Your task to perform on an android device: Go to Google Image 0: 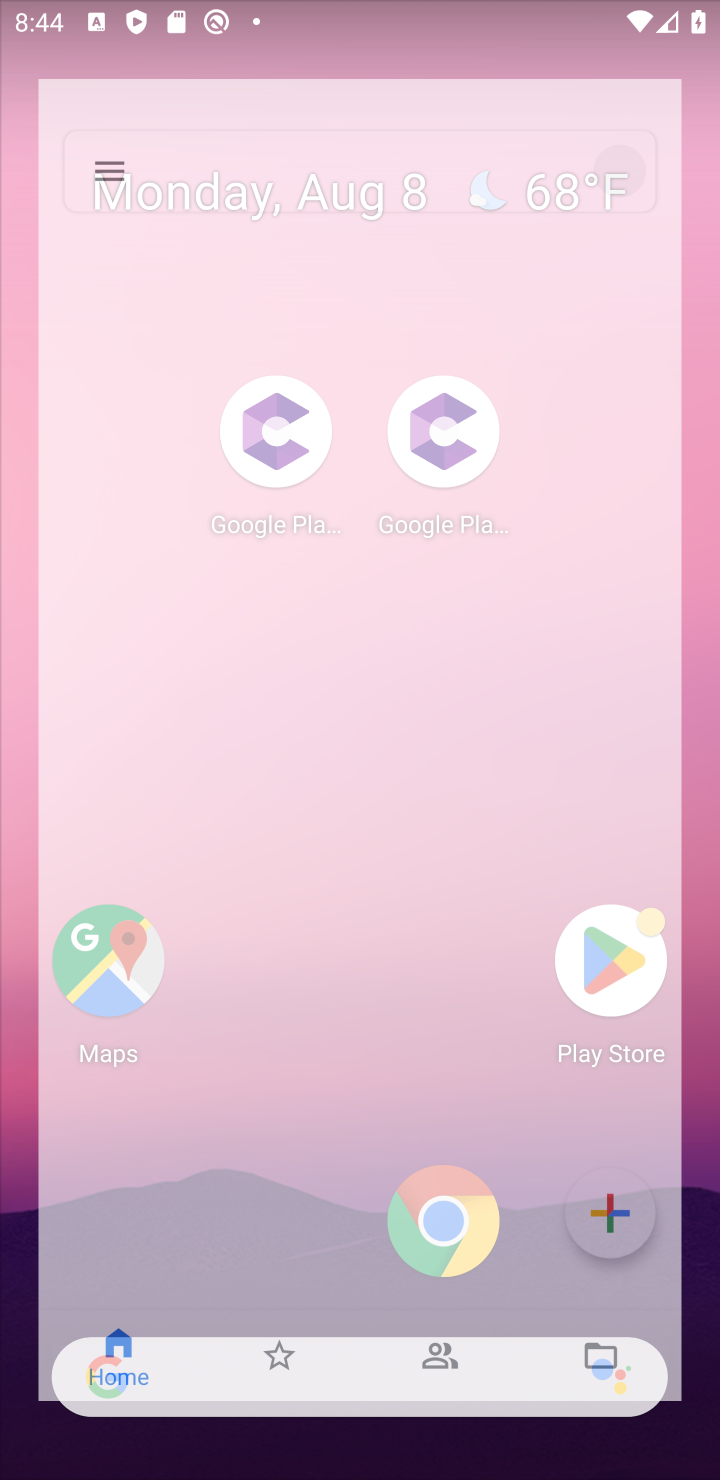
Step 0: press home button
Your task to perform on an android device: Go to Google Image 1: 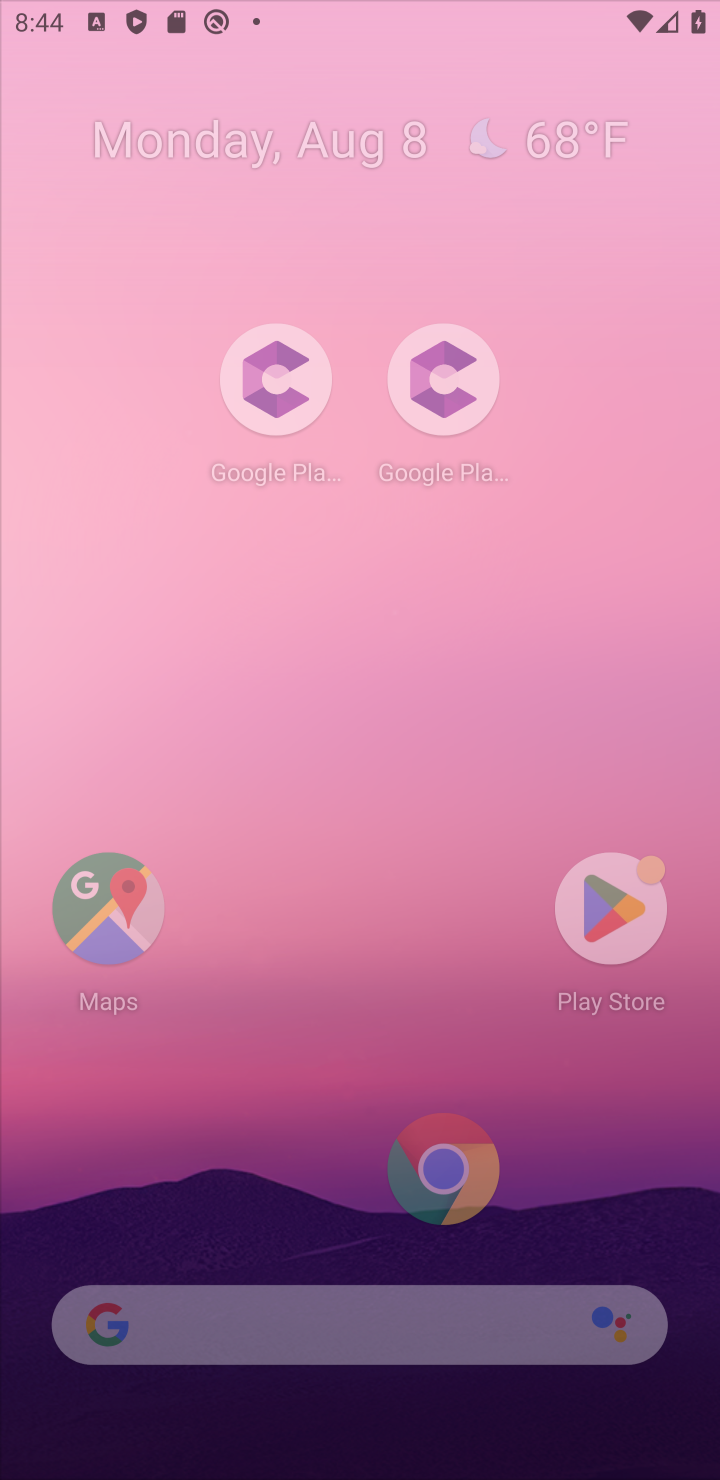
Step 1: press home button
Your task to perform on an android device: Go to Google Image 2: 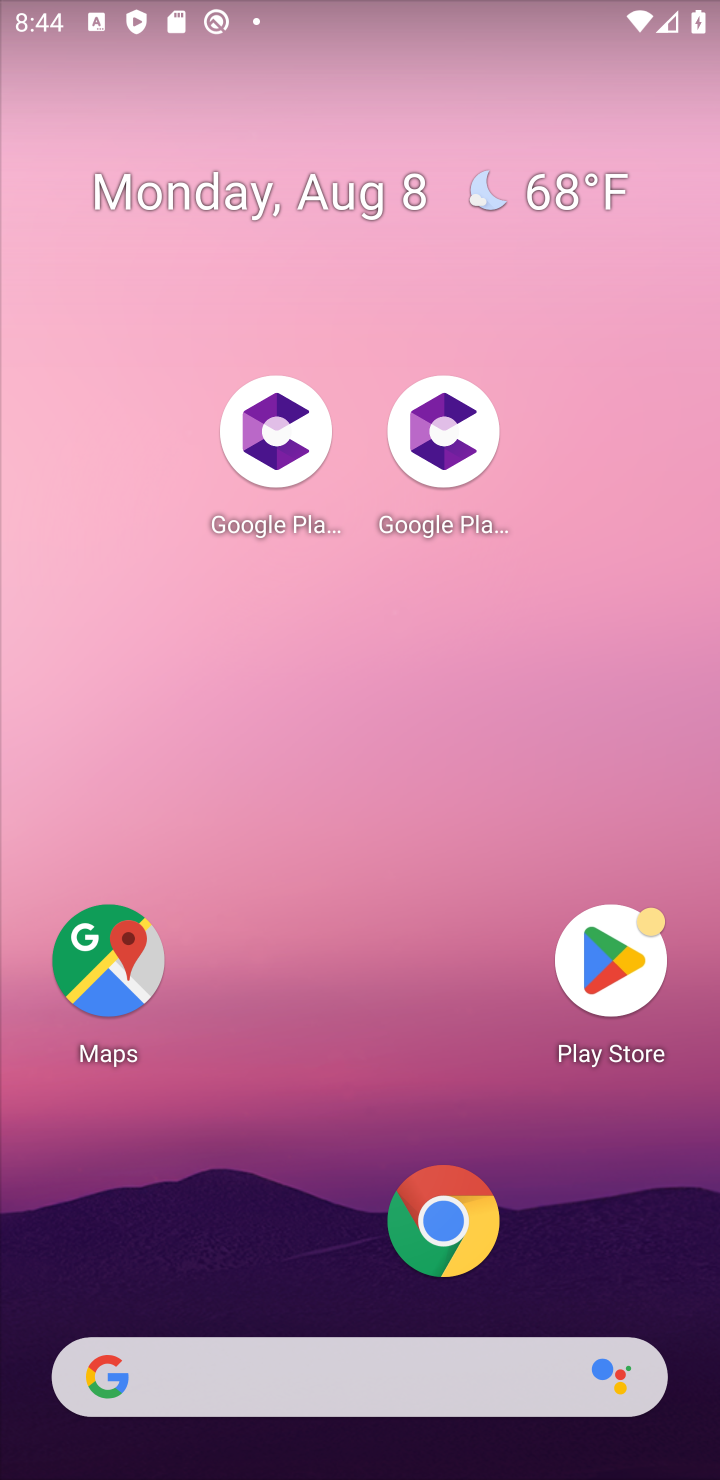
Step 2: click (377, 1392)
Your task to perform on an android device: Go to Google Image 3: 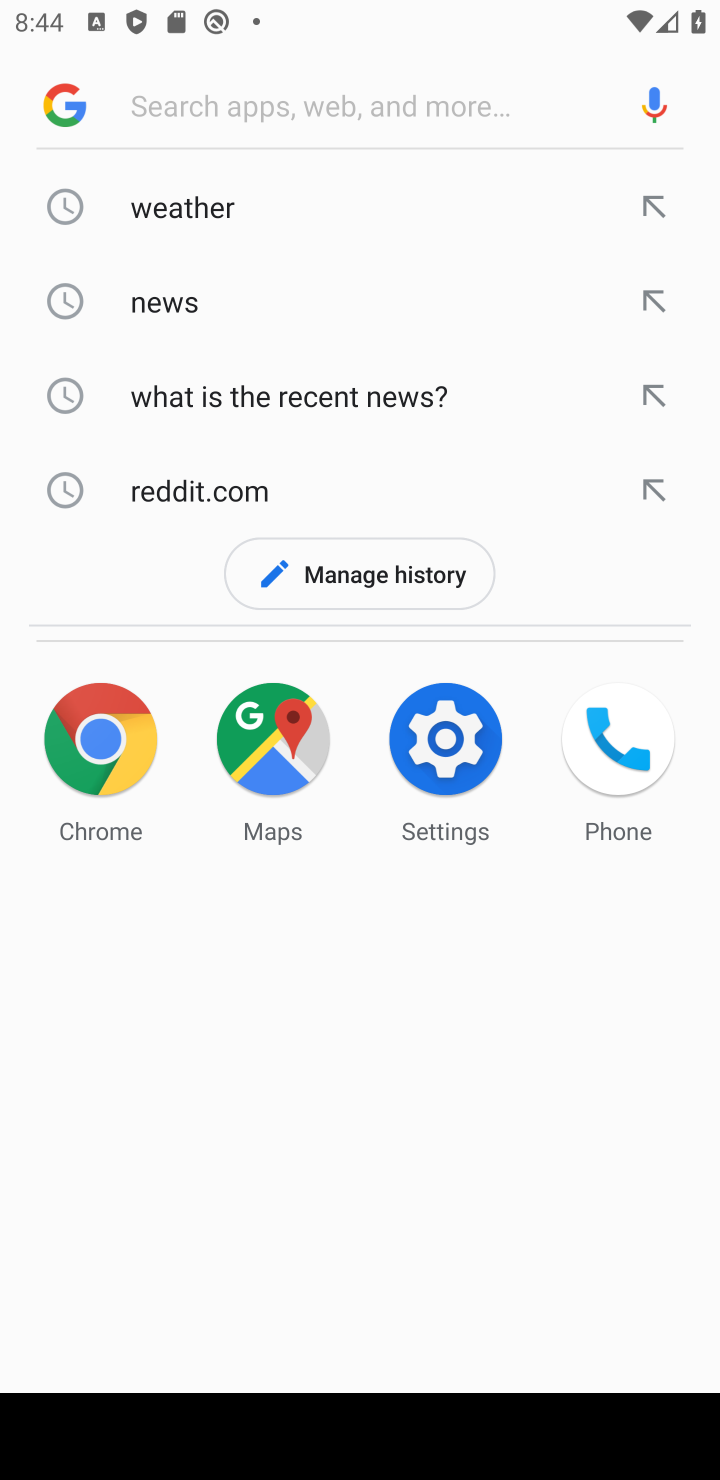
Step 3: task complete